Your task to perform on an android device: Open settings on Google Maps Image 0: 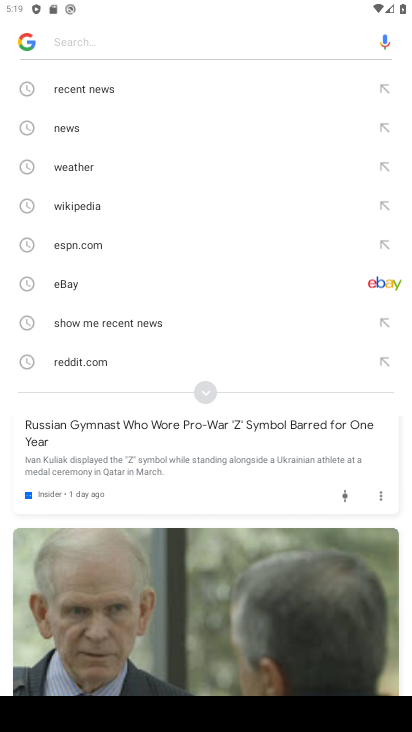
Step 0: drag from (148, 196) to (208, 126)
Your task to perform on an android device: Open settings on Google Maps Image 1: 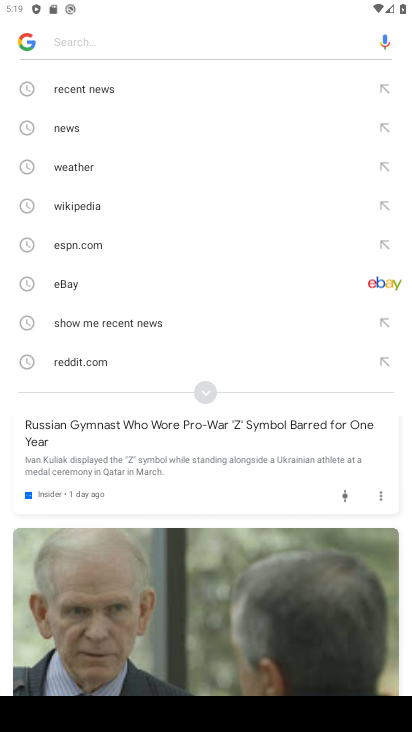
Step 1: press back button
Your task to perform on an android device: Open settings on Google Maps Image 2: 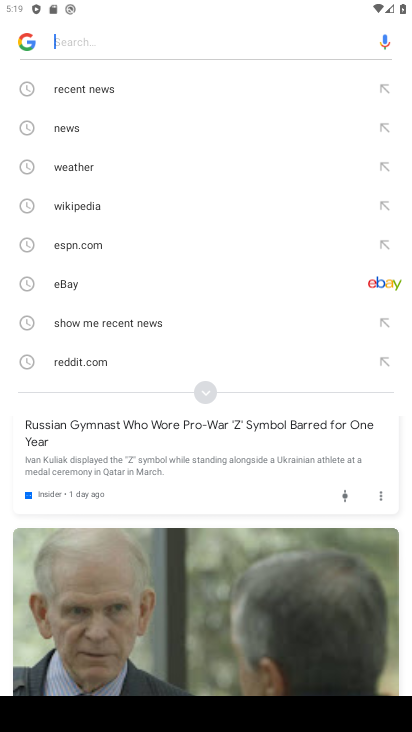
Step 2: press back button
Your task to perform on an android device: Open settings on Google Maps Image 3: 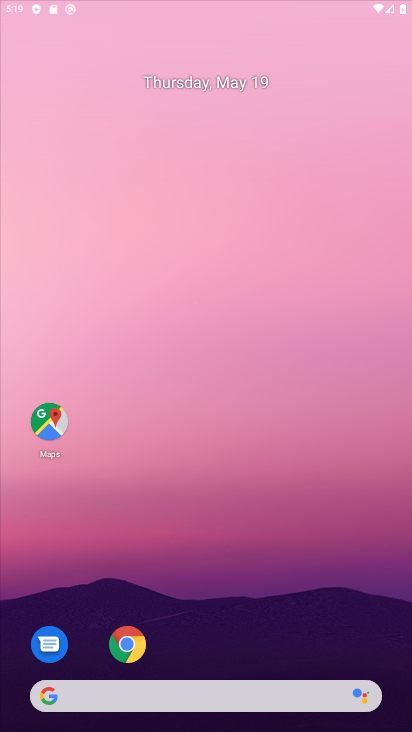
Step 3: press back button
Your task to perform on an android device: Open settings on Google Maps Image 4: 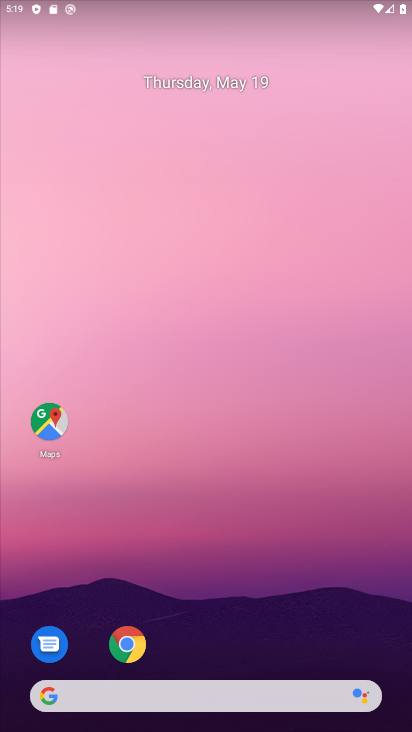
Step 4: drag from (244, 656) to (80, 12)
Your task to perform on an android device: Open settings on Google Maps Image 5: 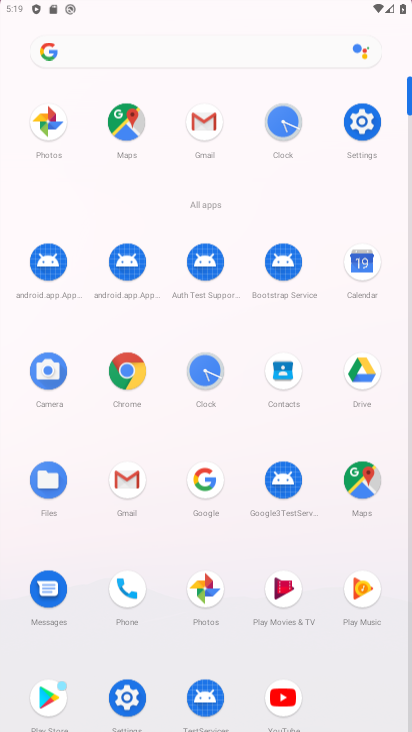
Step 5: drag from (194, 487) to (116, 68)
Your task to perform on an android device: Open settings on Google Maps Image 6: 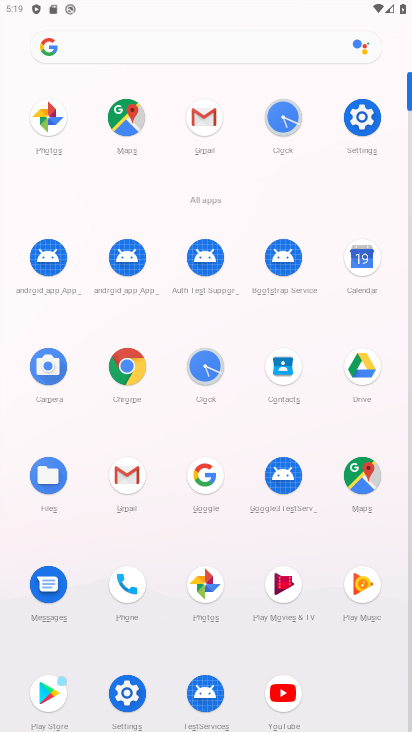
Step 6: click (364, 484)
Your task to perform on an android device: Open settings on Google Maps Image 7: 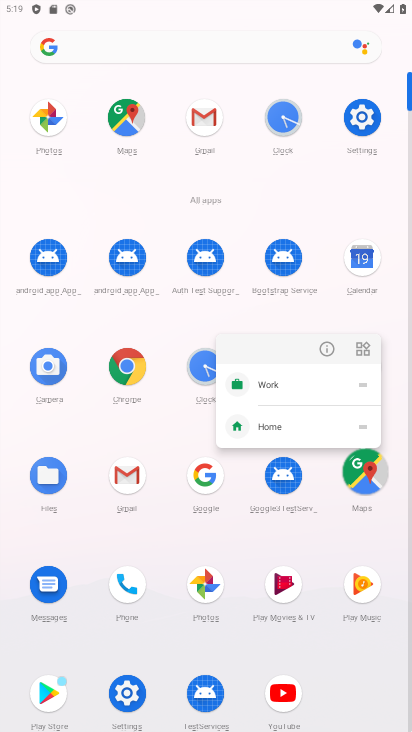
Step 7: click (364, 480)
Your task to perform on an android device: Open settings on Google Maps Image 8: 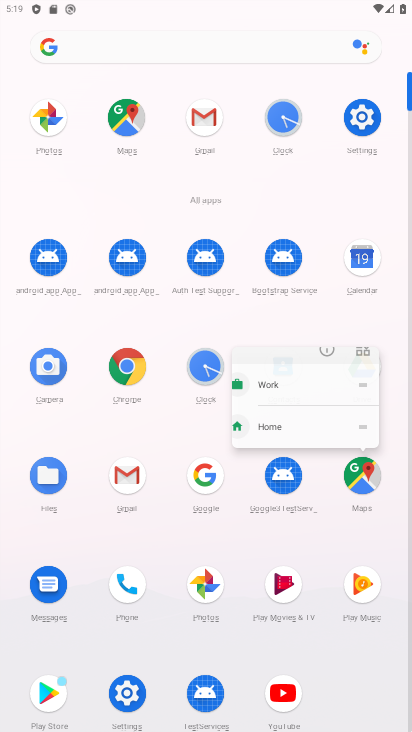
Step 8: click (359, 485)
Your task to perform on an android device: Open settings on Google Maps Image 9: 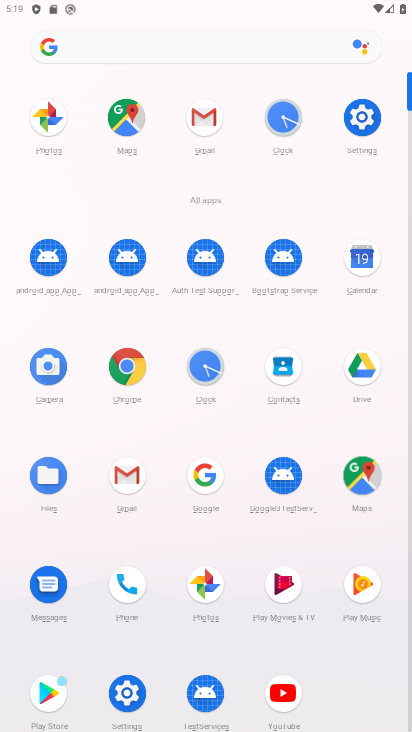
Step 9: click (360, 485)
Your task to perform on an android device: Open settings on Google Maps Image 10: 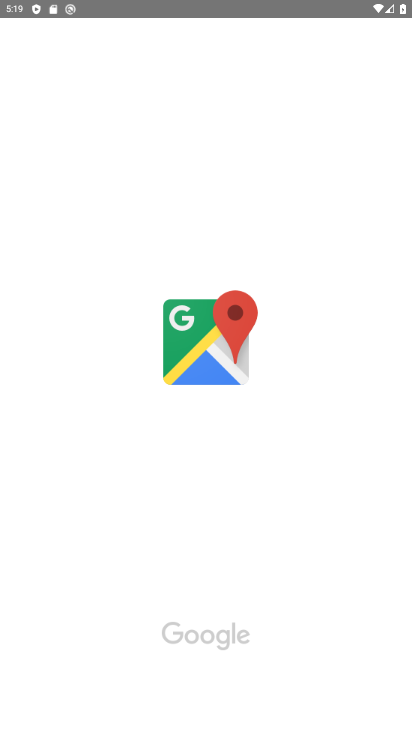
Step 10: click (361, 498)
Your task to perform on an android device: Open settings on Google Maps Image 11: 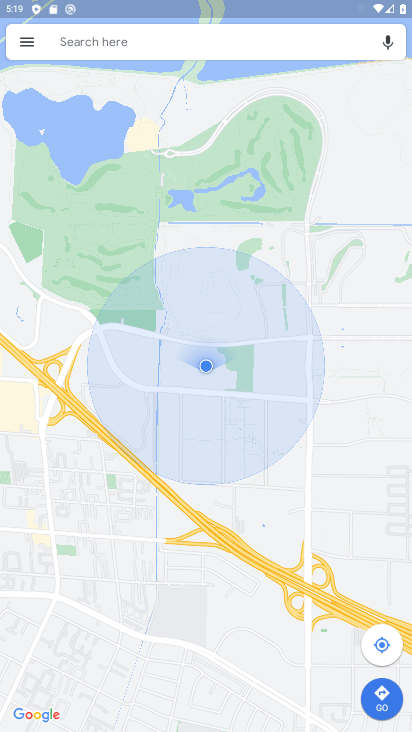
Step 11: task complete